Your task to perform on an android device: change alarm snooze length Image 0: 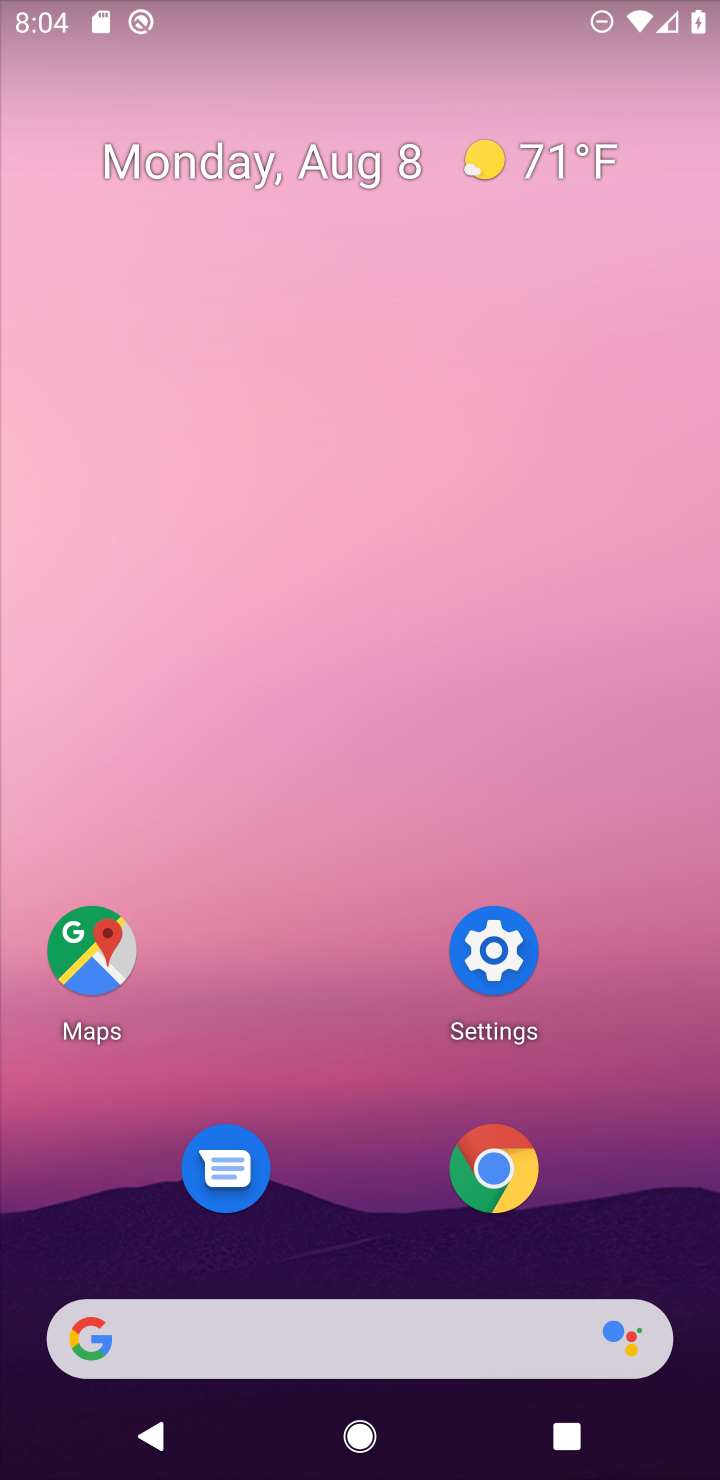
Step 0: press home button
Your task to perform on an android device: change alarm snooze length Image 1: 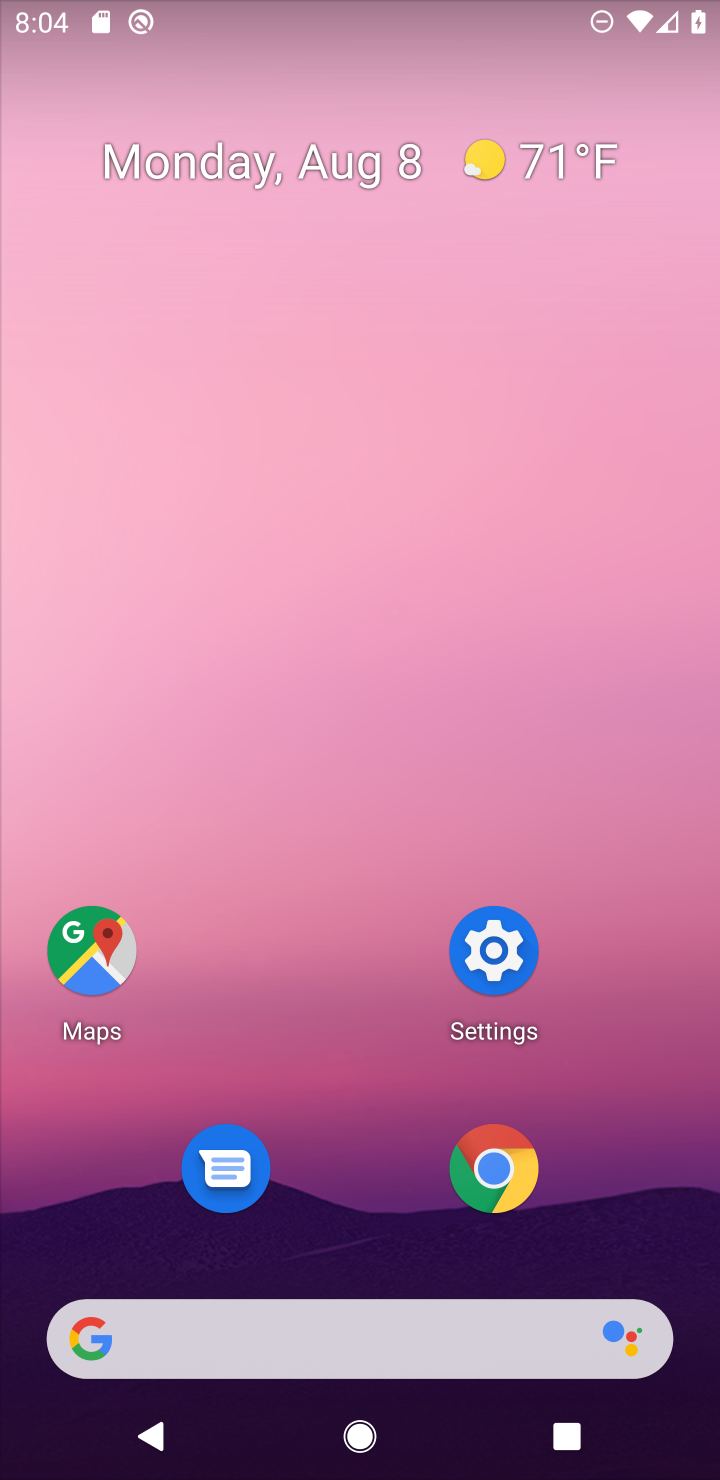
Step 1: drag from (389, 1131) to (583, 34)
Your task to perform on an android device: change alarm snooze length Image 2: 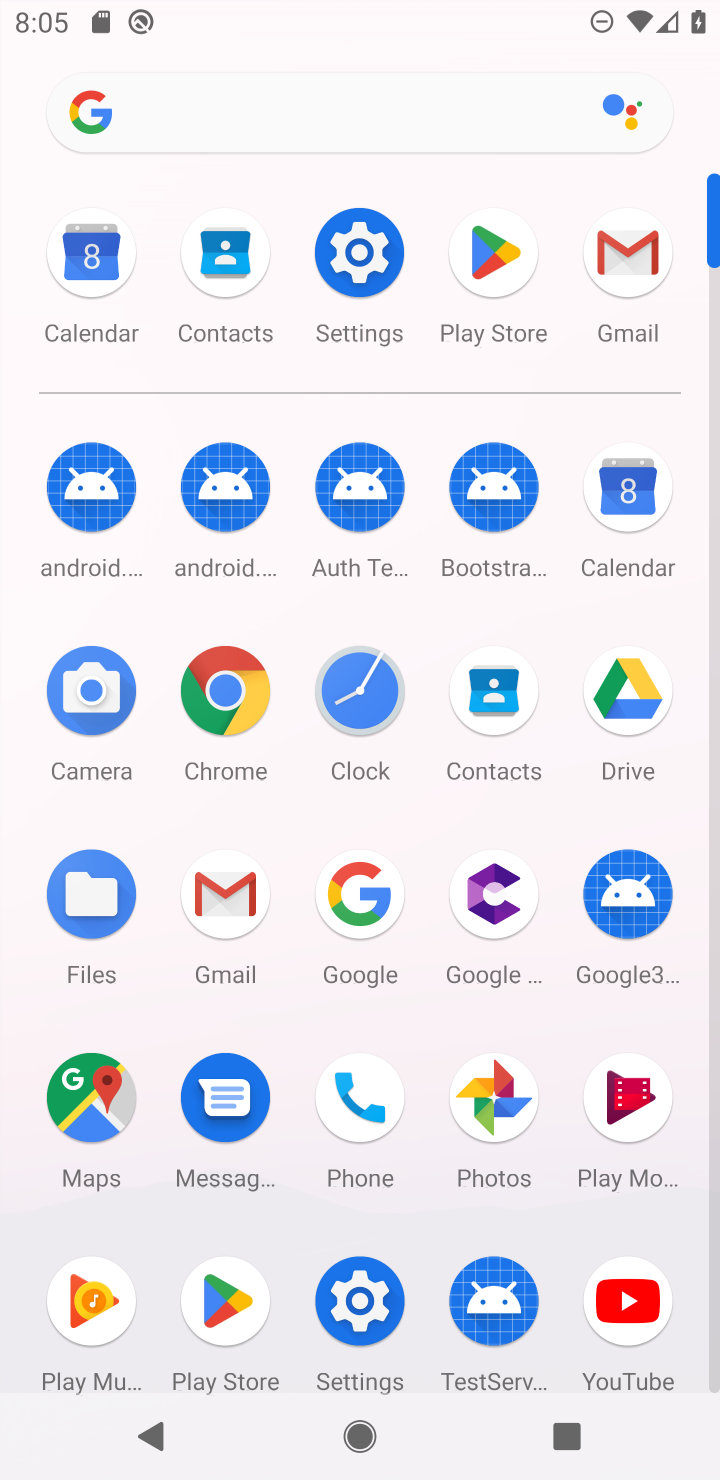
Step 2: click (356, 695)
Your task to perform on an android device: change alarm snooze length Image 3: 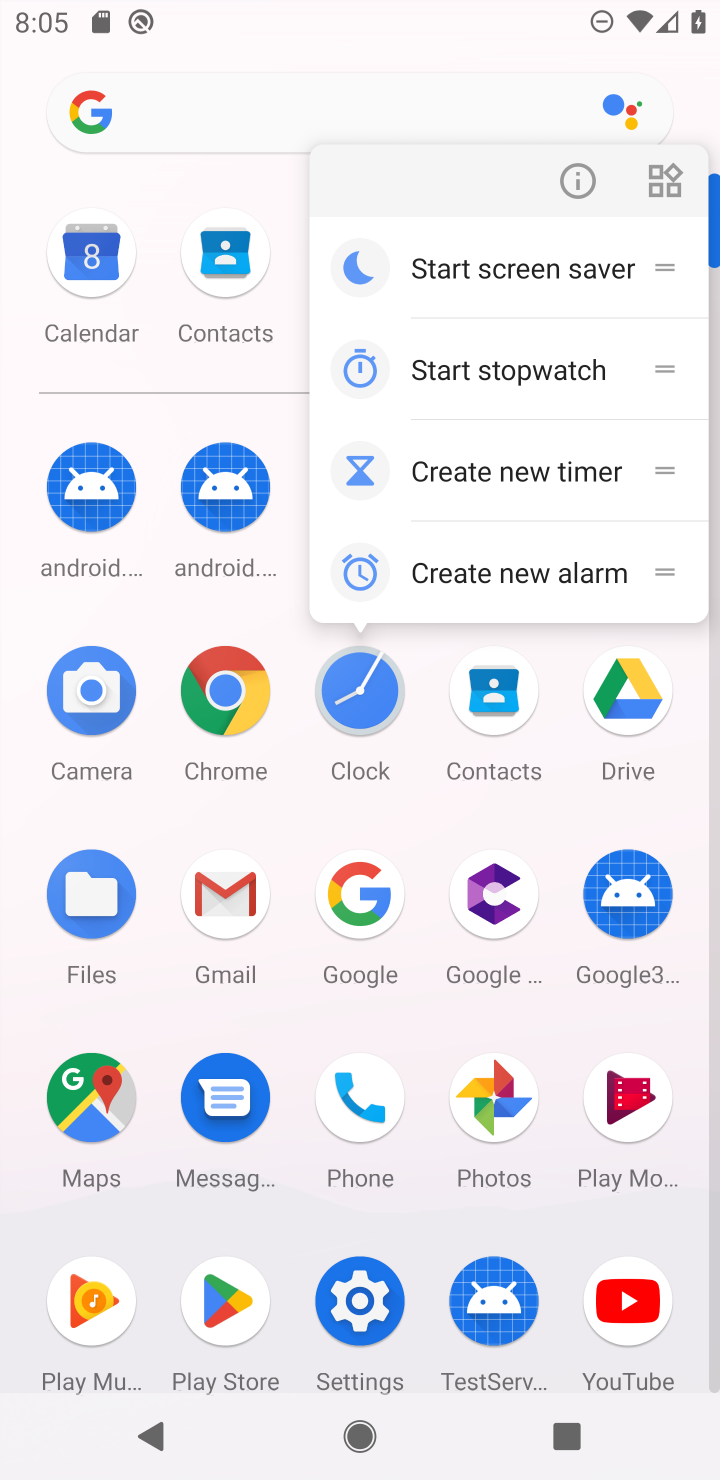
Step 3: click (357, 700)
Your task to perform on an android device: change alarm snooze length Image 4: 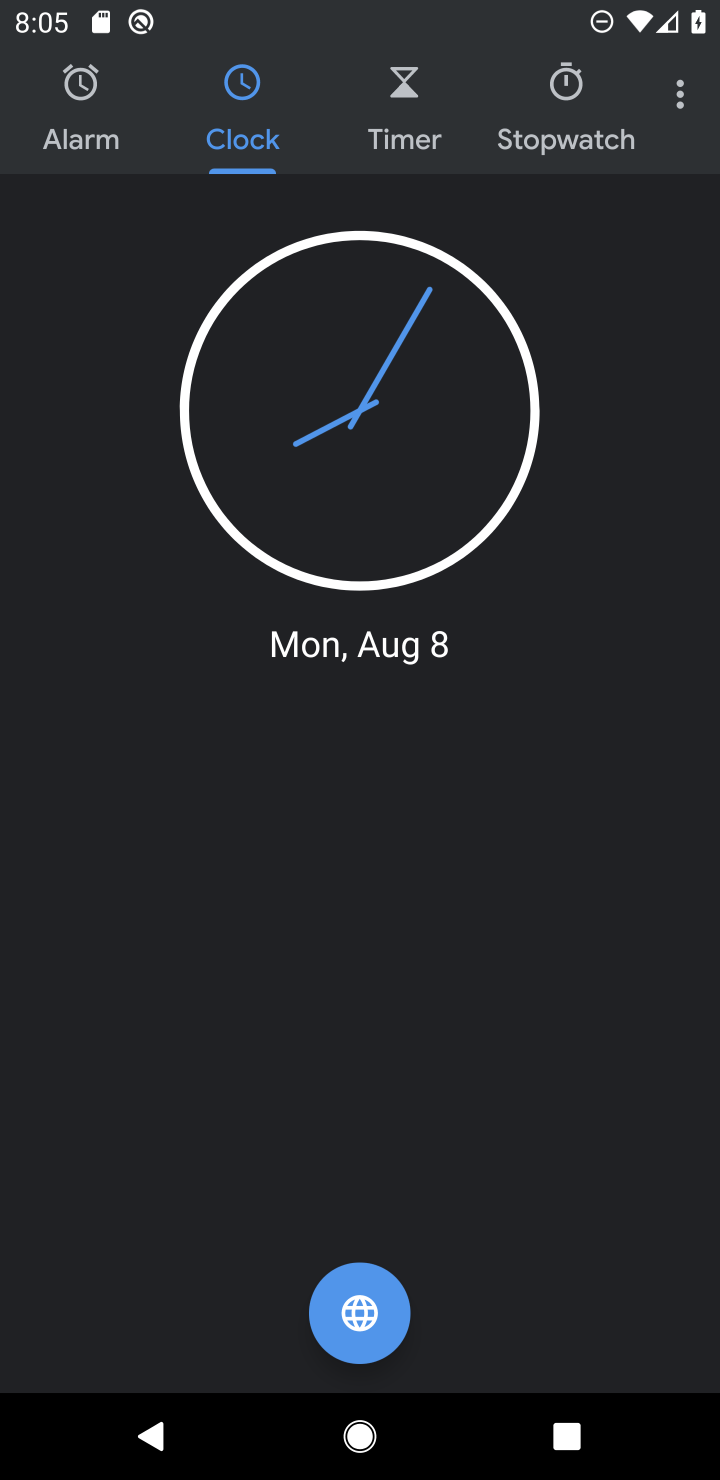
Step 4: click (687, 86)
Your task to perform on an android device: change alarm snooze length Image 5: 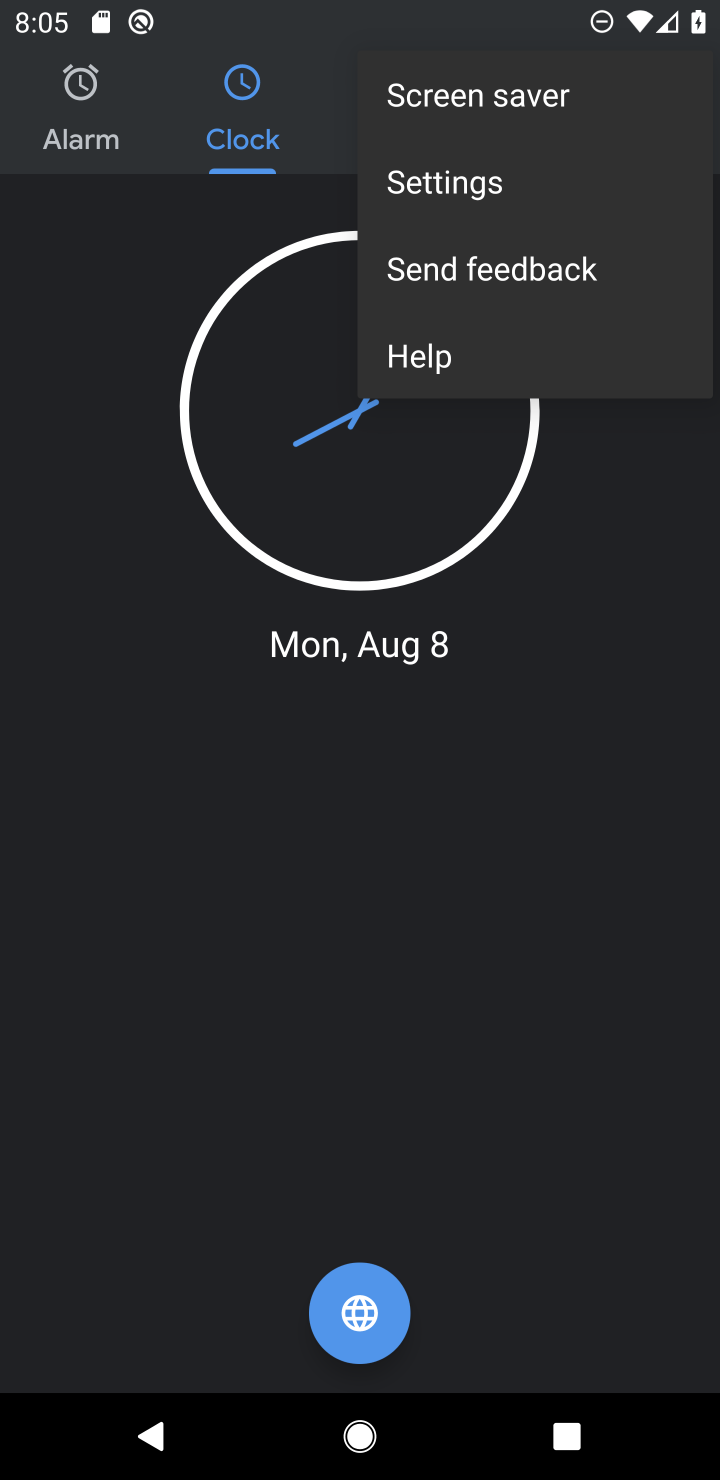
Step 5: click (457, 186)
Your task to perform on an android device: change alarm snooze length Image 6: 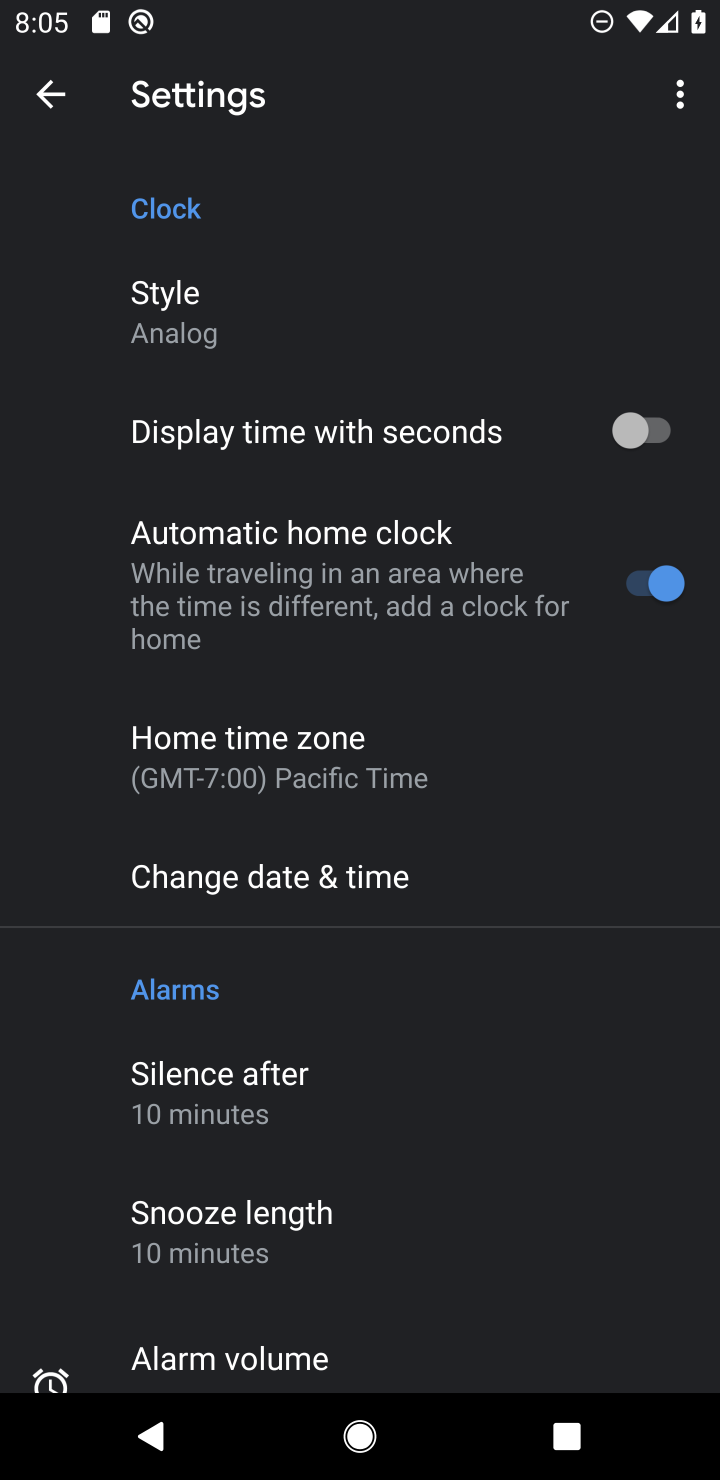
Step 6: click (182, 1227)
Your task to perform on an android device: change alarm snooze length Image 7: 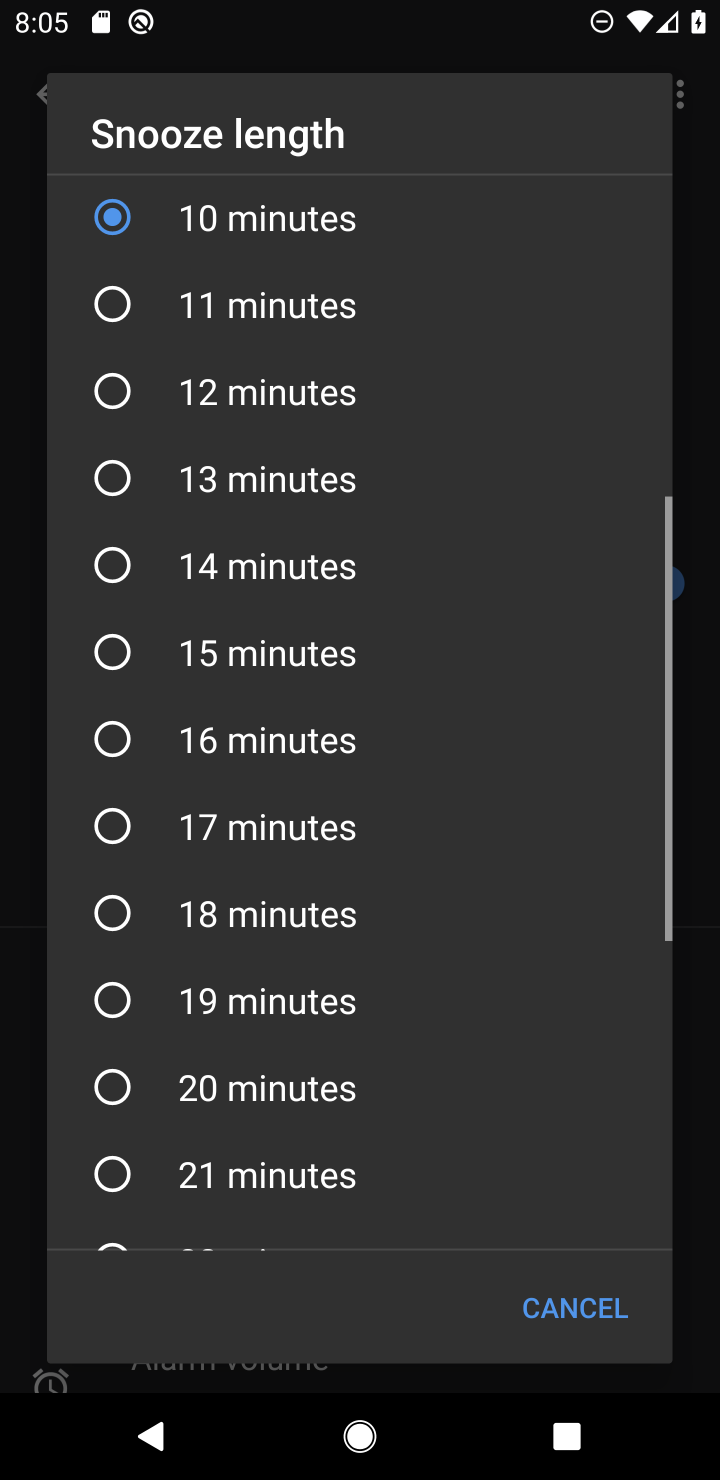
Step 7: click (123, 640)
Your task to perform on an android device: change alarm snooze length Image 8: 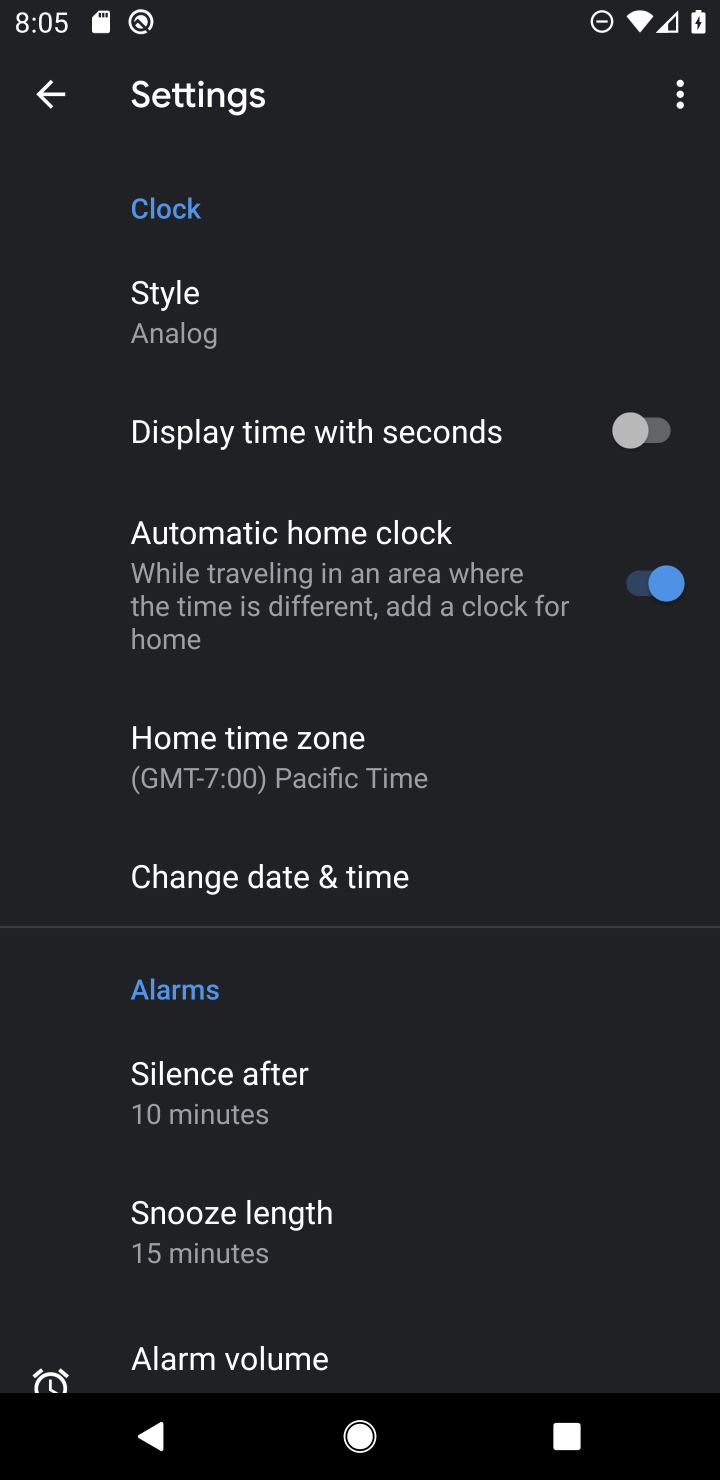
Step 8: task complete